Your task to perform on an android device: Go to sound settings Image 0: 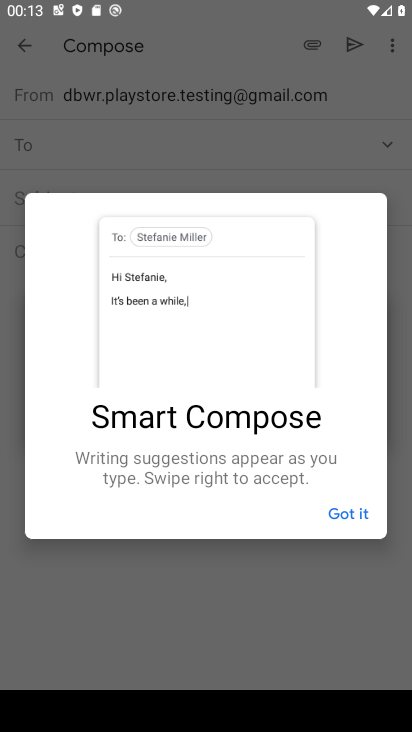
Step 0: press home button
Your task to perform on an android device: Go to sound settings Image 1: 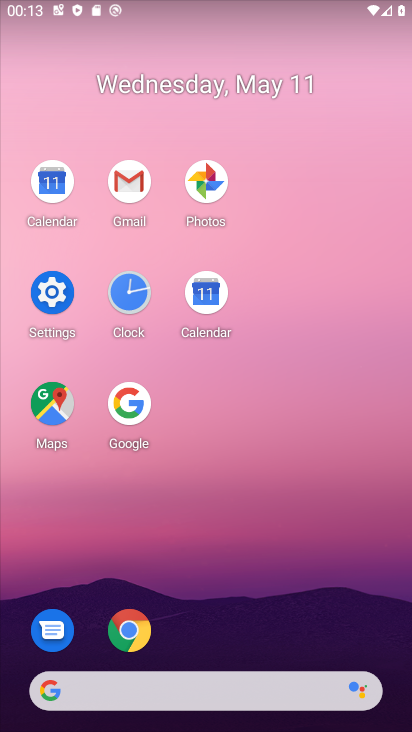
Step 1: click (56, 296)
Your task to perform on an android device: Go to sound settings Image 2: 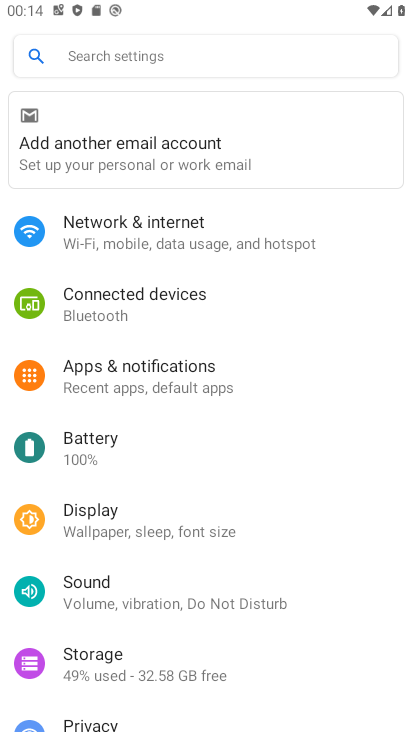
Step 2: click (259, 597)
Your task to perform on an android device: Go to sound settings Image 3: 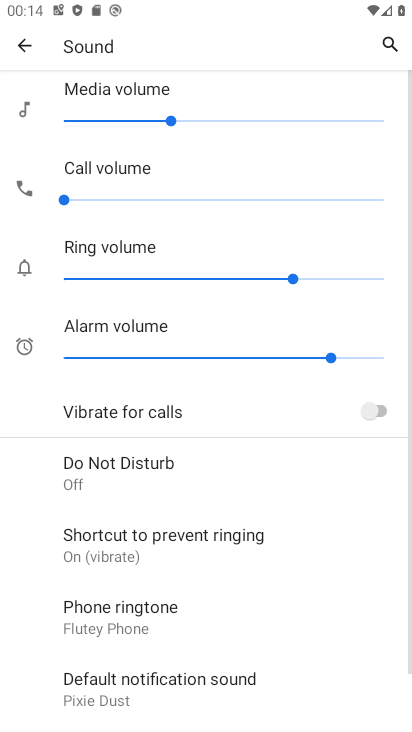
Step 3: task complete